Your task to perform on an android device: turn on improve location accuracy Image 0: 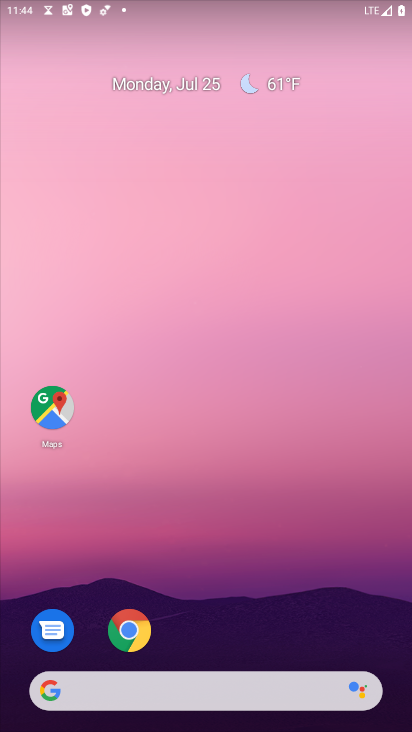
Step 0: drag from (249, 595) to (307, 29)
Your task to perform on an android device: turn on improve location accuracy Image 1: 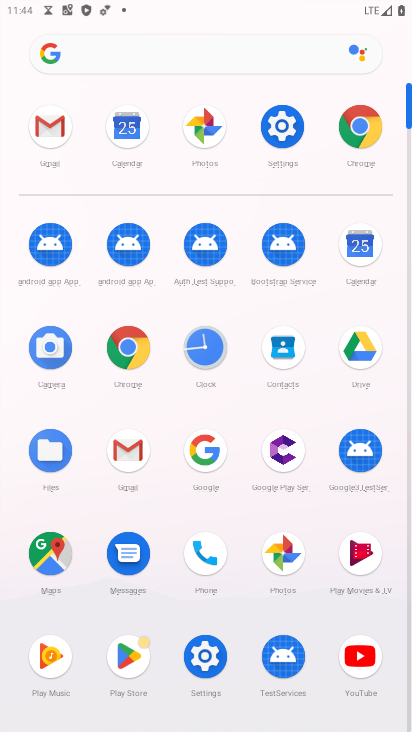
Step 1: click (276, 138)
Your task to perform on an android device: turn on improve location accuracy Image 2: 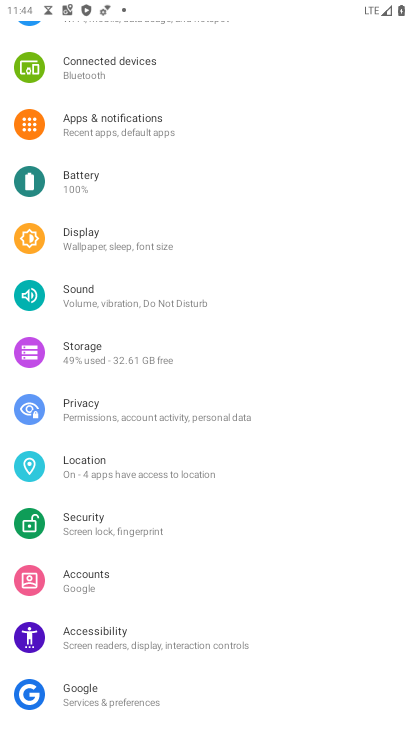
Step 2: click (90, 474)
Your task to perform on an android device: turn on improve location accuracy Image 3: 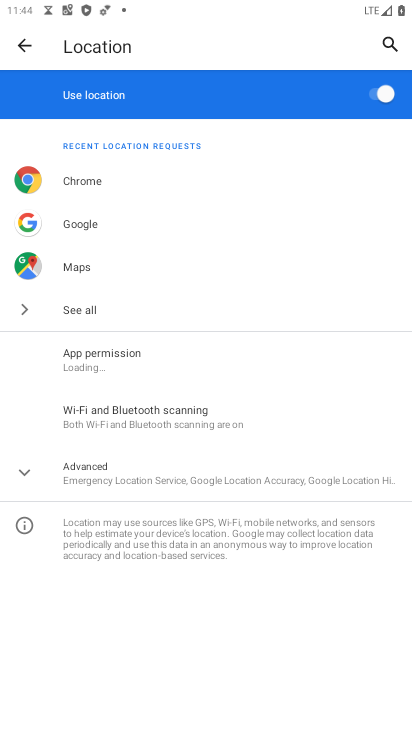
Step 3: click (134, 475)
Your task to perform on an android device: turn on improve location accuracy Image 4: 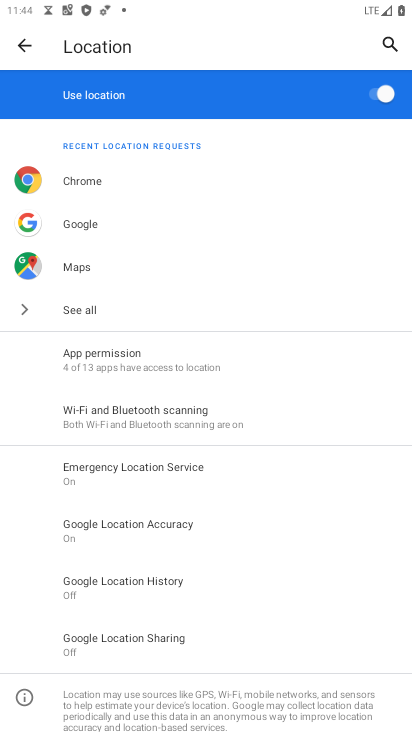
Step 4: click (150, 530)
Your task to perform on an android device: turn on improve location accuracy Image 5: 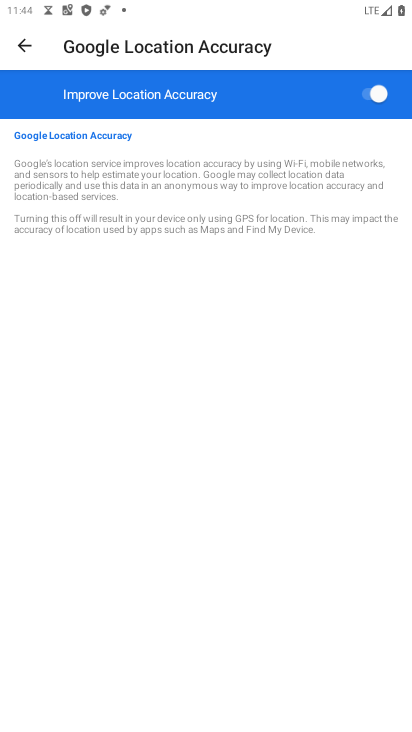
Step 5: task complete